Your task to perform on an android device: delete location history Image 0: 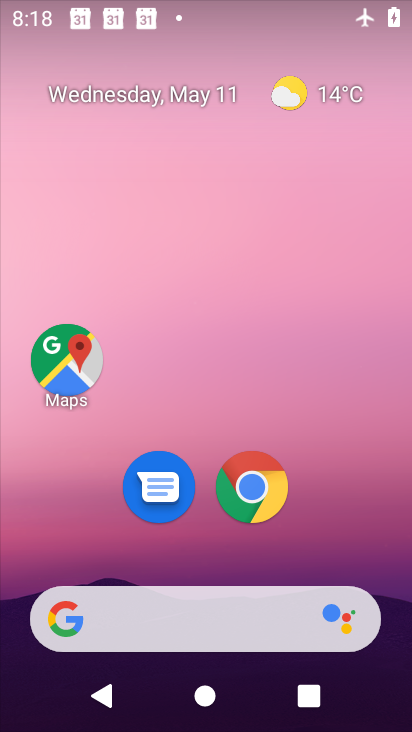
Step 0: drag from (220, 724) to (214, 220)
Your task to perform on an android device: delete location history Image 1: 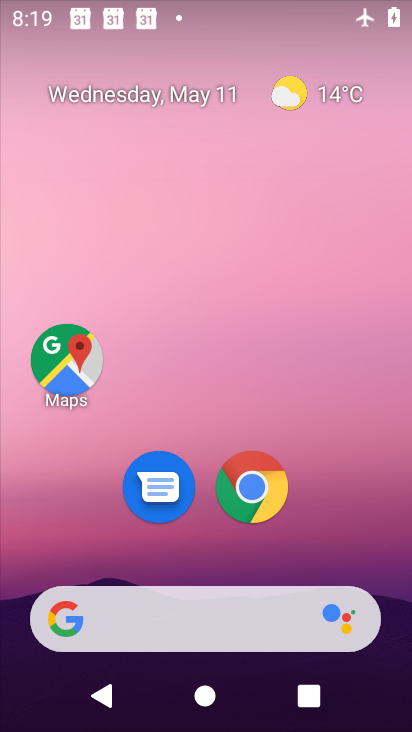
Step 1: drag from (224, 726) to (224, 39)
Your task to perform on an android device: delete location history Image 2: 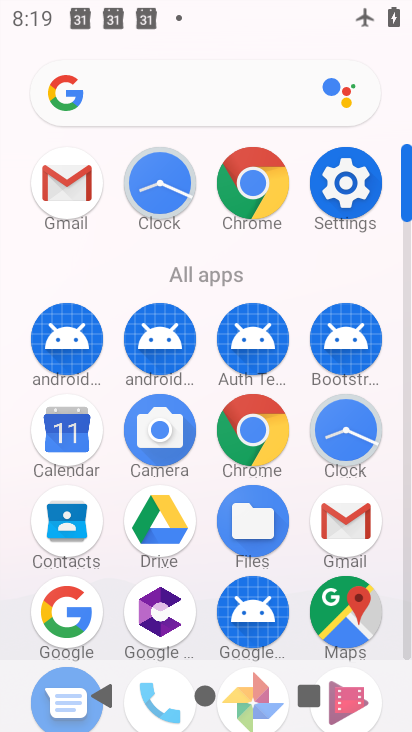
Step 2: drag from (290, 646) to (298, 288)
Your task to perform on an android device: delete location history Image 3: 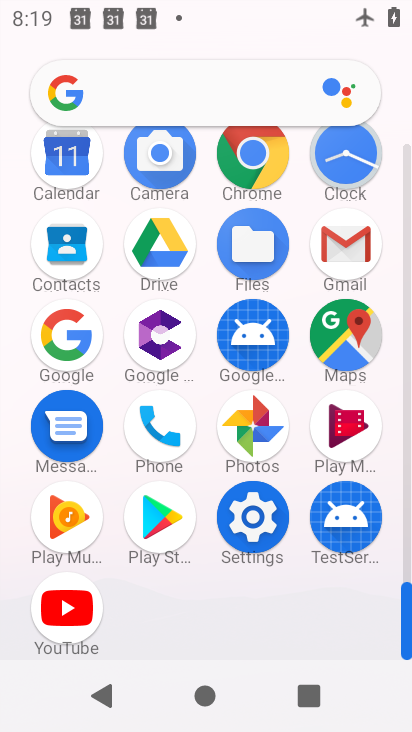
Step 3: click (354, 333)
Your task to perform on an android device: delete location history Image 4: 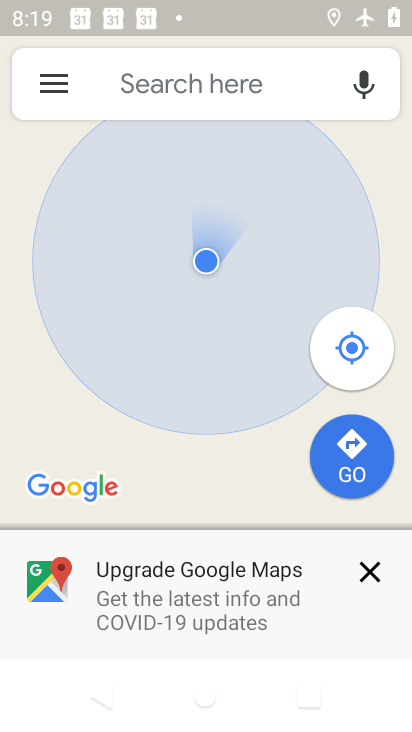
Step 4: click (52, 88)
Your task to perform on an android device: delete location history Image 5: 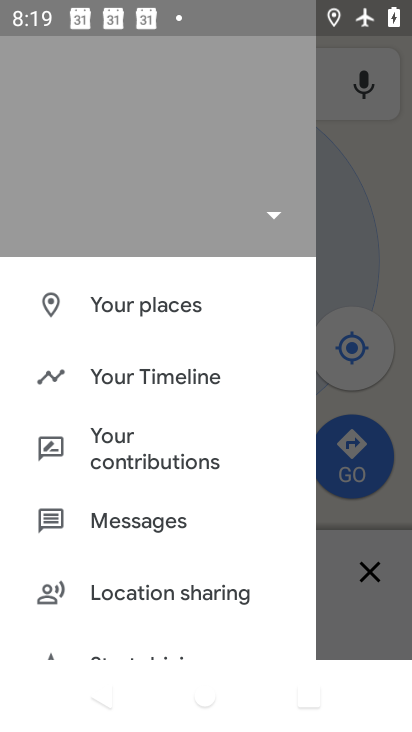
Step 5: click (150, 376)
Your task to perform on an android device: delete location history Image 6: 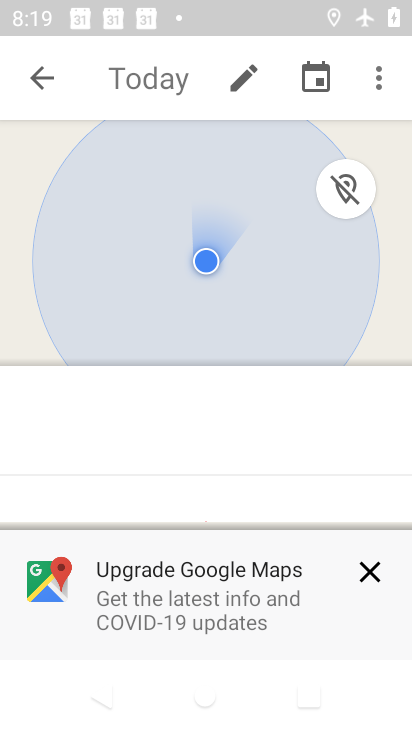
Step 6: click (378, 81)
Your task to perform on an android device: delete location history Image 7: 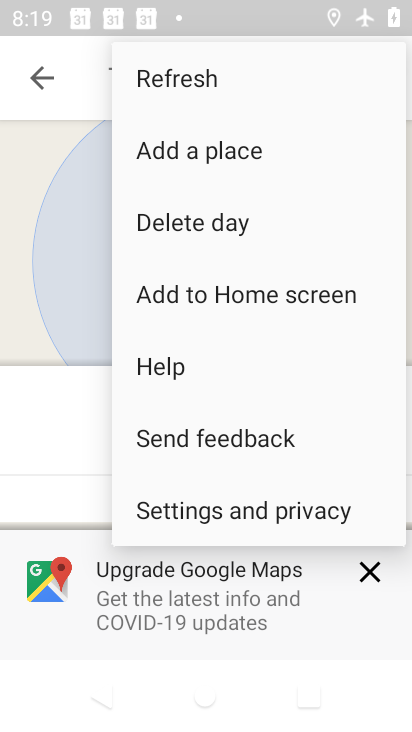
Step 7: click (198, 503)
Your task to perform on an android device: delete location history Image 8: 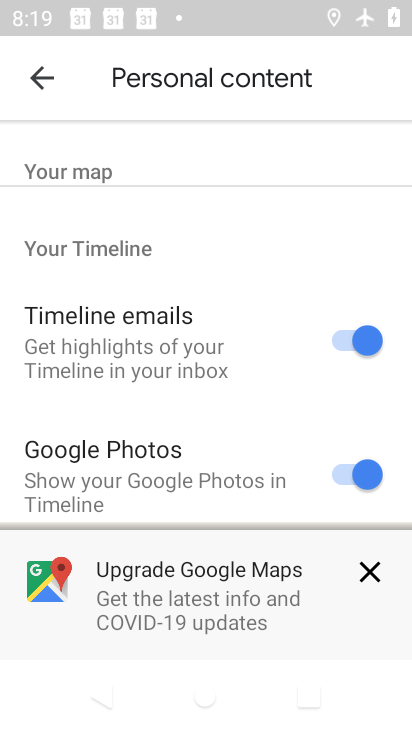
Step 8: drag from (185, 495) to (210, 169)
Your task to perform on an android device: delete location history Image 9: 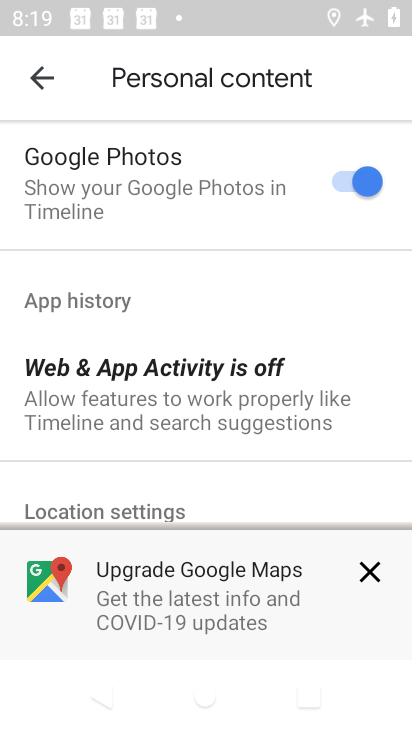
Step 9: click (368, 572)
Your task to perform on an android device: delete location history Image 10: 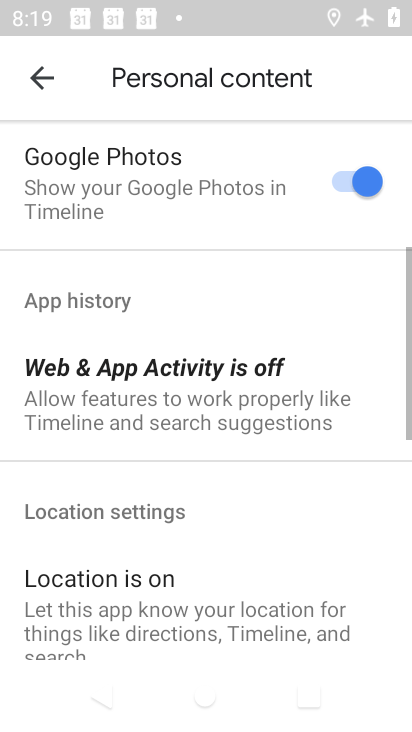
Step 10: drag from (249, 611) to (252, 237)
Your task to perform on an android device: delete location history Image 11: 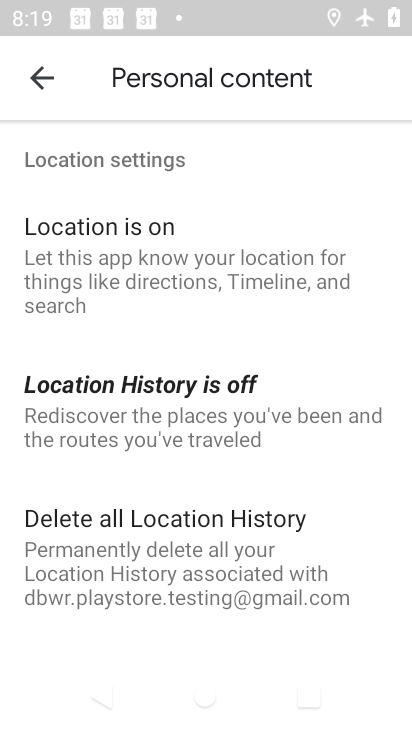
Step 11: click (148, 526)
Your task to perform on an android device: delete location history Image 12: 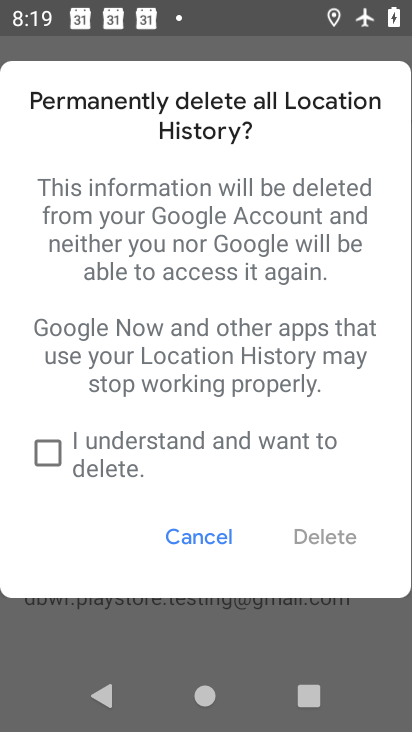
Step 12: click (50, 455)
Your task to perform on an android device: delete location history Image 13: 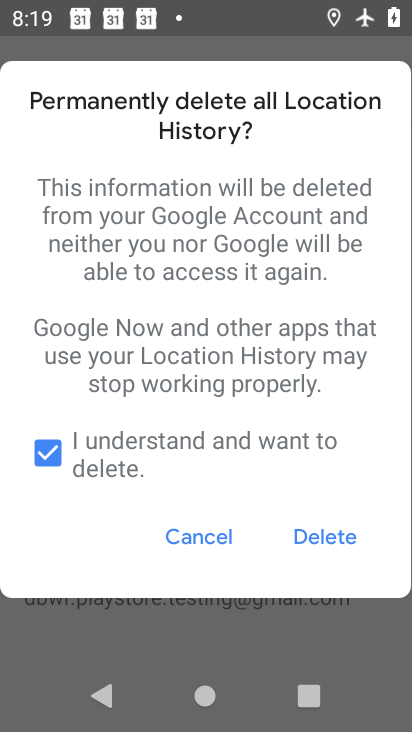
Step 13: click (337, 535)
Your task to perform on an android device: delete location history Image 14: 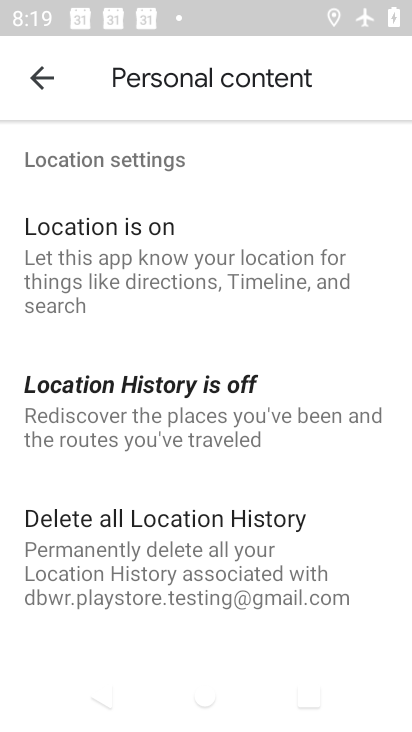
Step 14: task complete